Your task to perform on an android device: star an email in the gmail app Image 0: 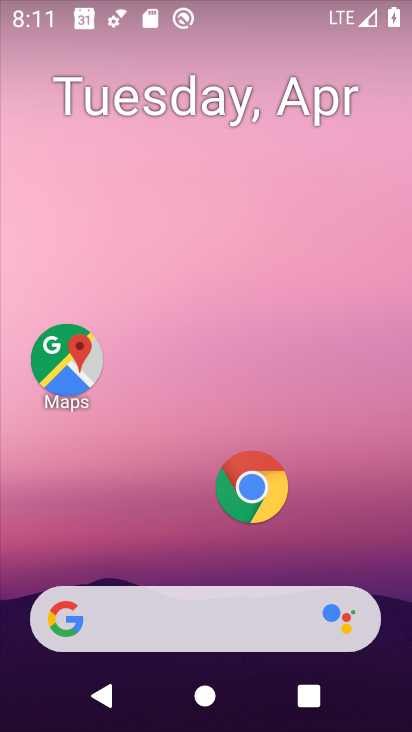
Step 0: drag from (259, 620) to (259, 49)
Your task to perform on an android device: star an email in the gmail app Image 1: 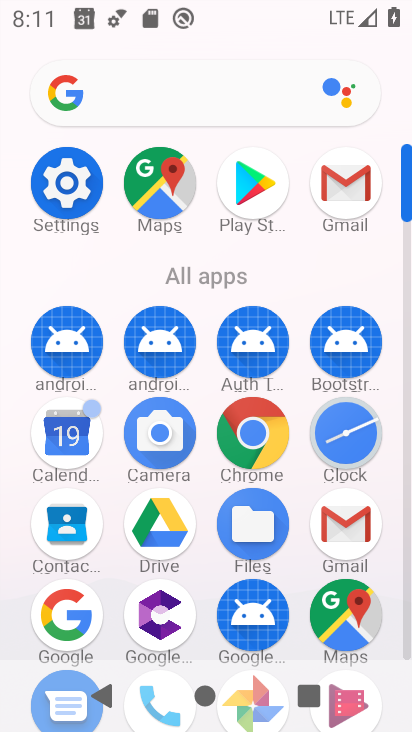
Step 1: click (331, 525)
Your task to perform on an android device: star an email in the gmail app Image 2: 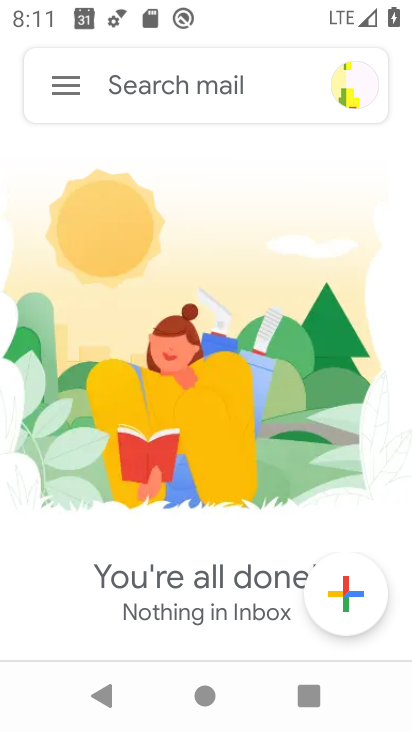
Step 2: click (63, 78)
Your task to perform on an android device: star an email in the gmail app Image 3: 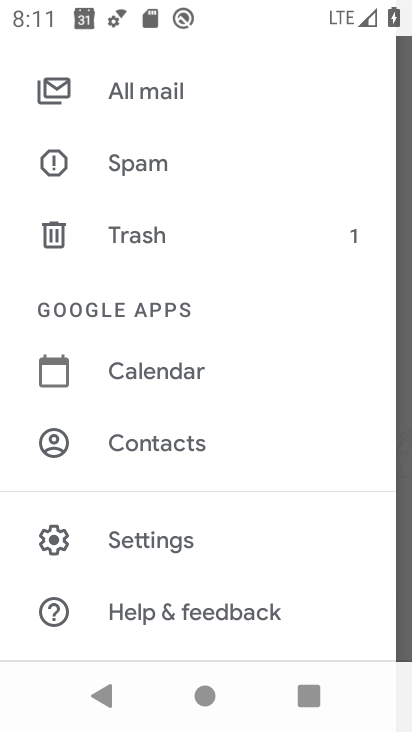
Step 3: click (192, 75)
Your task to perform on an android device: star an email in the gmail app Image 4: 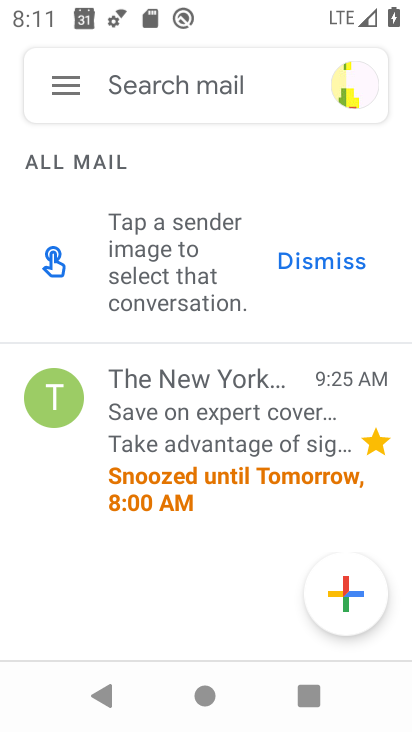
Step 4: task complete